Your task to perform on an android device: empty trash in google photos Image 0: 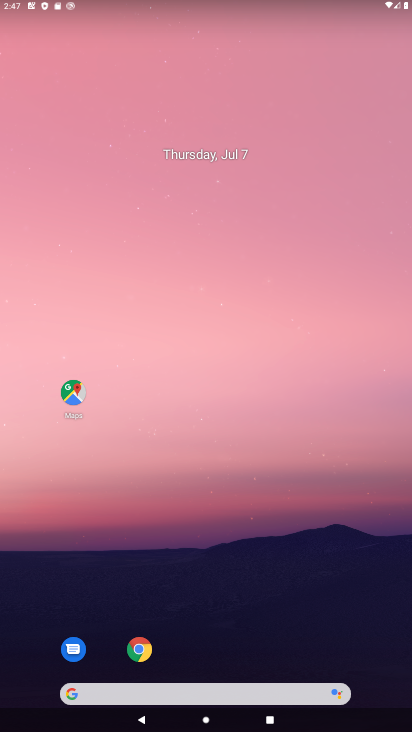
Step 0: drag from (249, 641) to (232, 39)
Your task to perform on an android device: empty trash in google photos Image 1: 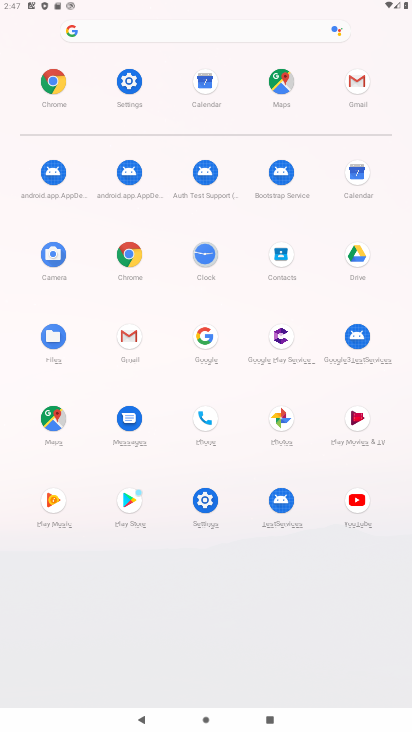
Step 1: click (283, 422)
Your task to perform on an android device: empty trash in google photos Image 2: 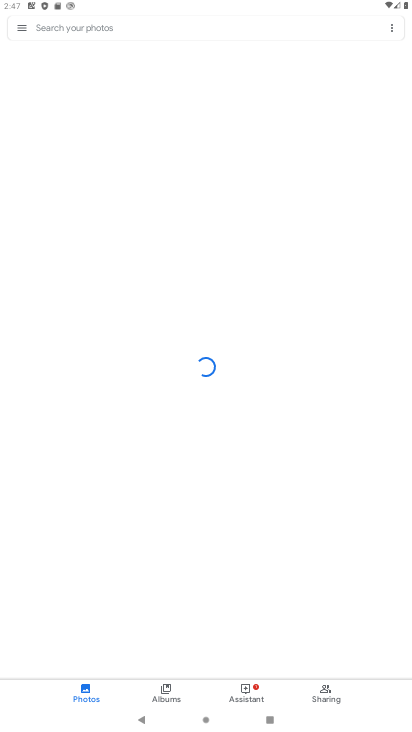
Step 2: click (21, 34)
Your task to perform on an android device: empty trash in google photos Image 3: 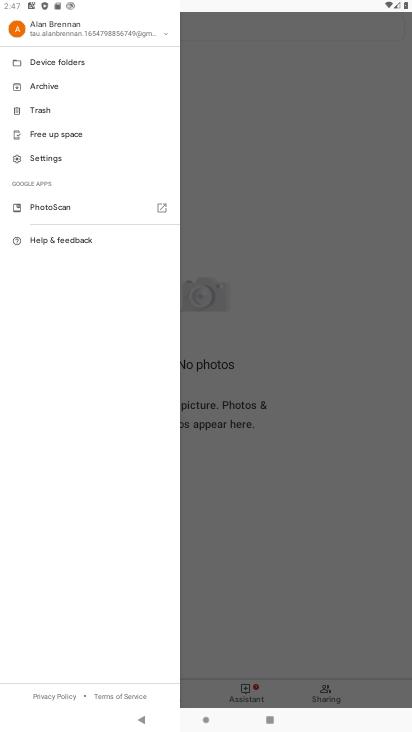
Step 3: click (48, 109)
Your task to perform on an android device: empty trash in google photos Image 4: 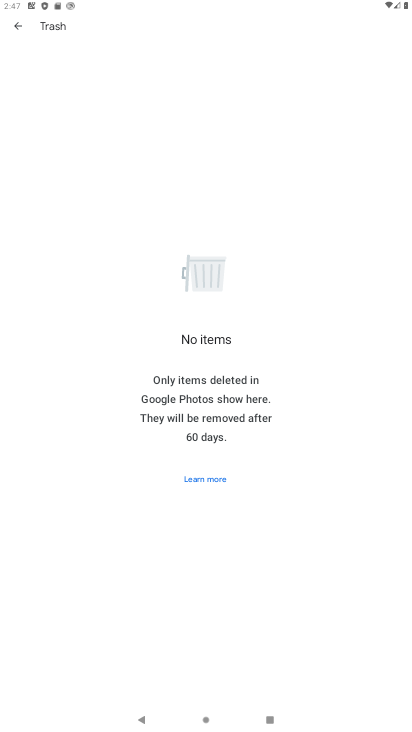
Step 4: task complete